Your task to perform on an android device: Open sound settings Image 0: 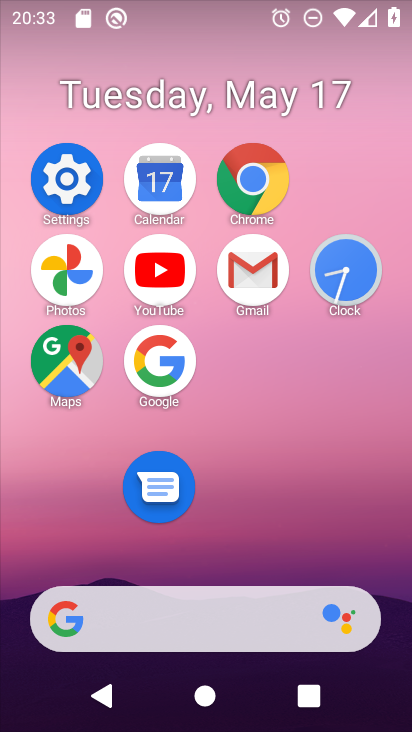
Step 0: click (86, 167)
Your task to perform on an android device: Open sound settings Image 1: 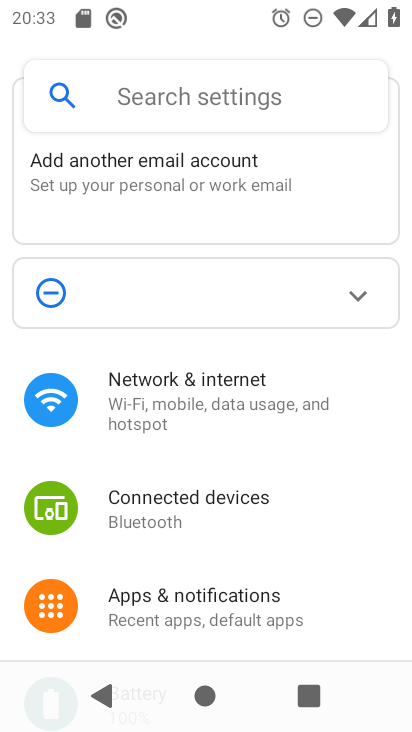
Step 1: drag from (245, 261) to (254, 204)
Your task to perform on an android device: Open sound settings Image 2: 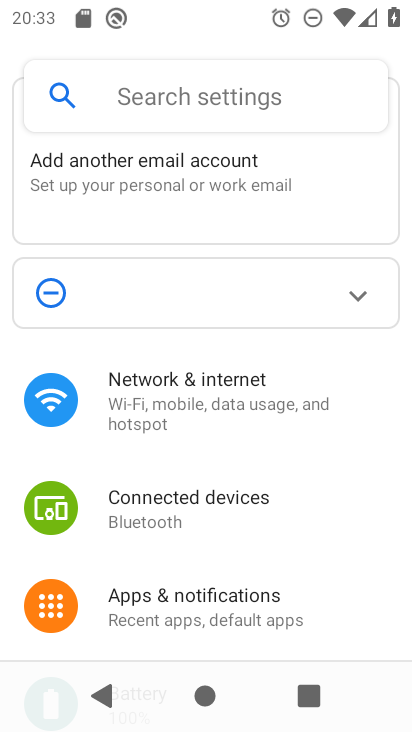
Step 2: drag from (262, 572) to (285, 175)
Your task to perform on an android device: Open sound settings Image 3: 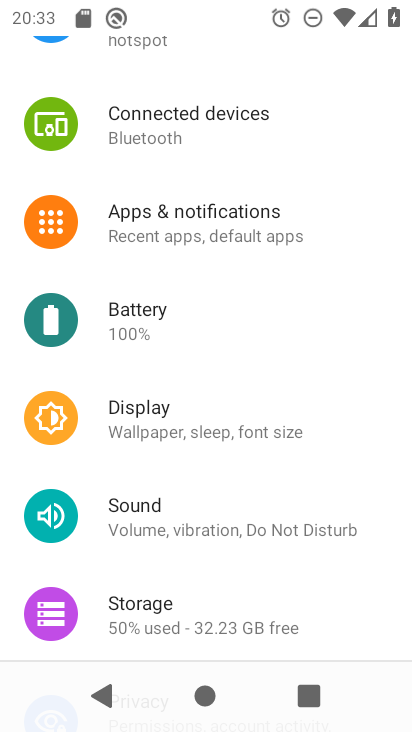
Step 3: click (263, 522)
Your task to perform on an android device: Open sound settings Image 4: 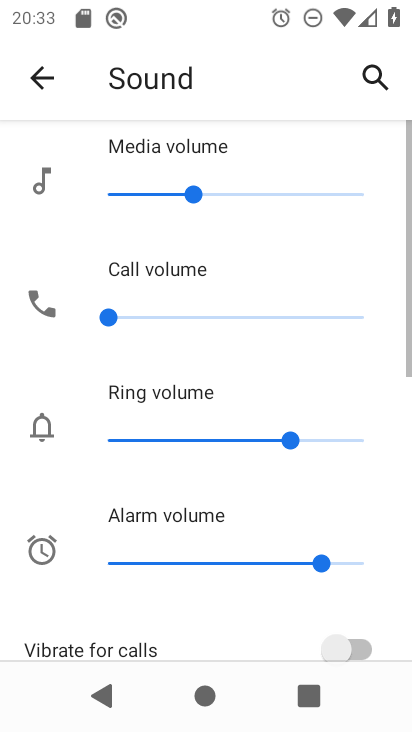
Step 4: task complete